Your task to perform on an android device: Search for "amazon basics triple a" on walmart, select the first entry, and add it to the cart. Image 0: 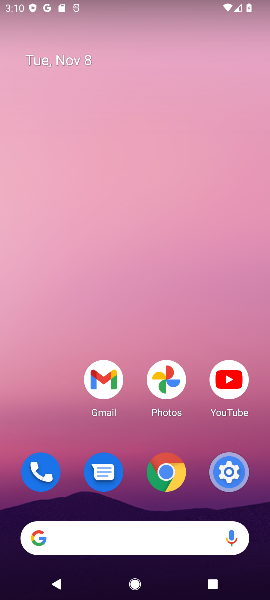
Step 0: click (95, 534)
Your task to perform on an android device: Search for "amazon basics triple a" on walmart, select the first entry, and add it to the cart. Image 1: 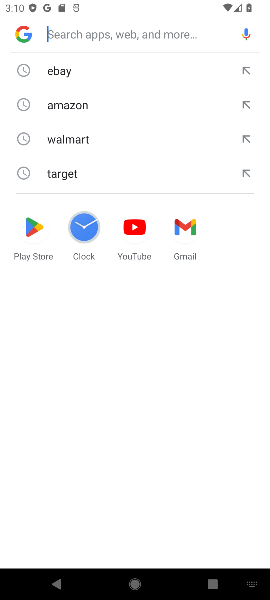
Step 1: click (106, 134)
Your task to perform on an android device: Search for "amazon basics triple a" on walmart, select the first entry, and add it to the cart. Image 2: 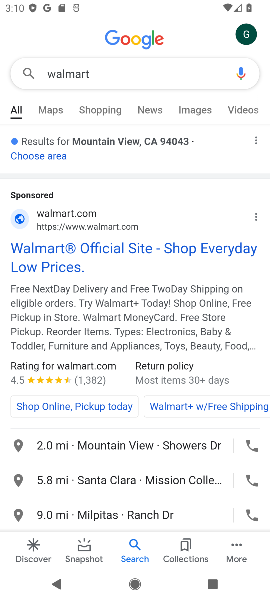
Step 2: click (126, 247)
Your task to perform on an android device: Search for "amazon basics triple a" on walmart, select the first entry, and add it to the cart. Image 3: 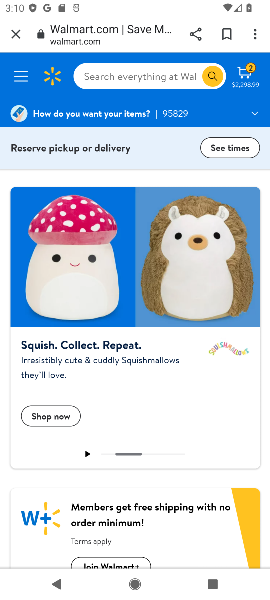
Step 3: click (172, 84)
Your task to perform on an android device: Search for "amazon basics triple a" on walmart, select the first entry, and add it to the cart. Image 4: 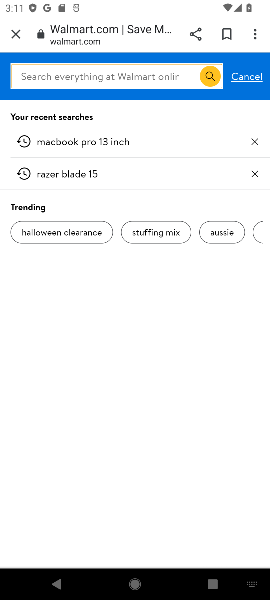
Step 4: task complete